Your task to perform on an android device: What's on the menu at Denny's? Image 0: 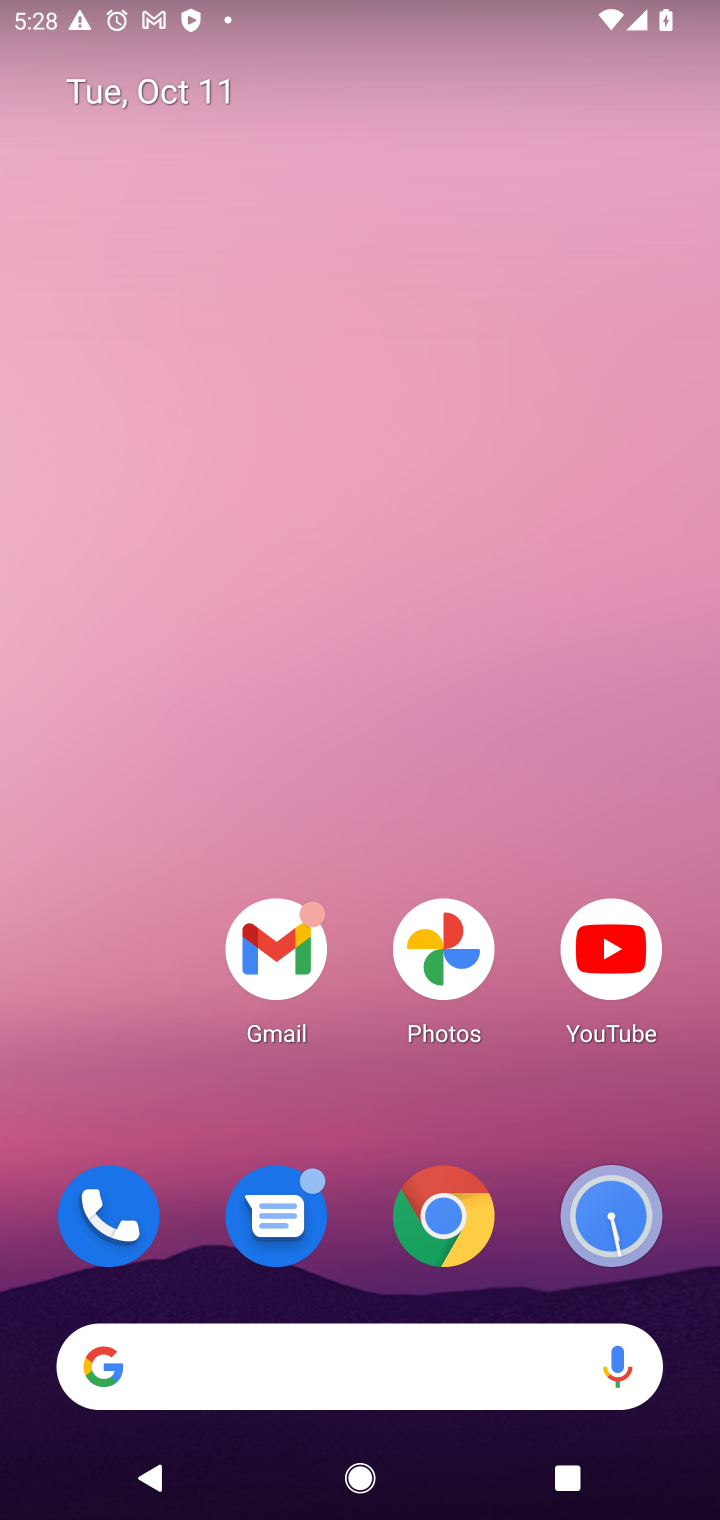
Step 0: click (463, 1198)
Your task to perform on an android device: What's on the menu at Denny's? Image 1: 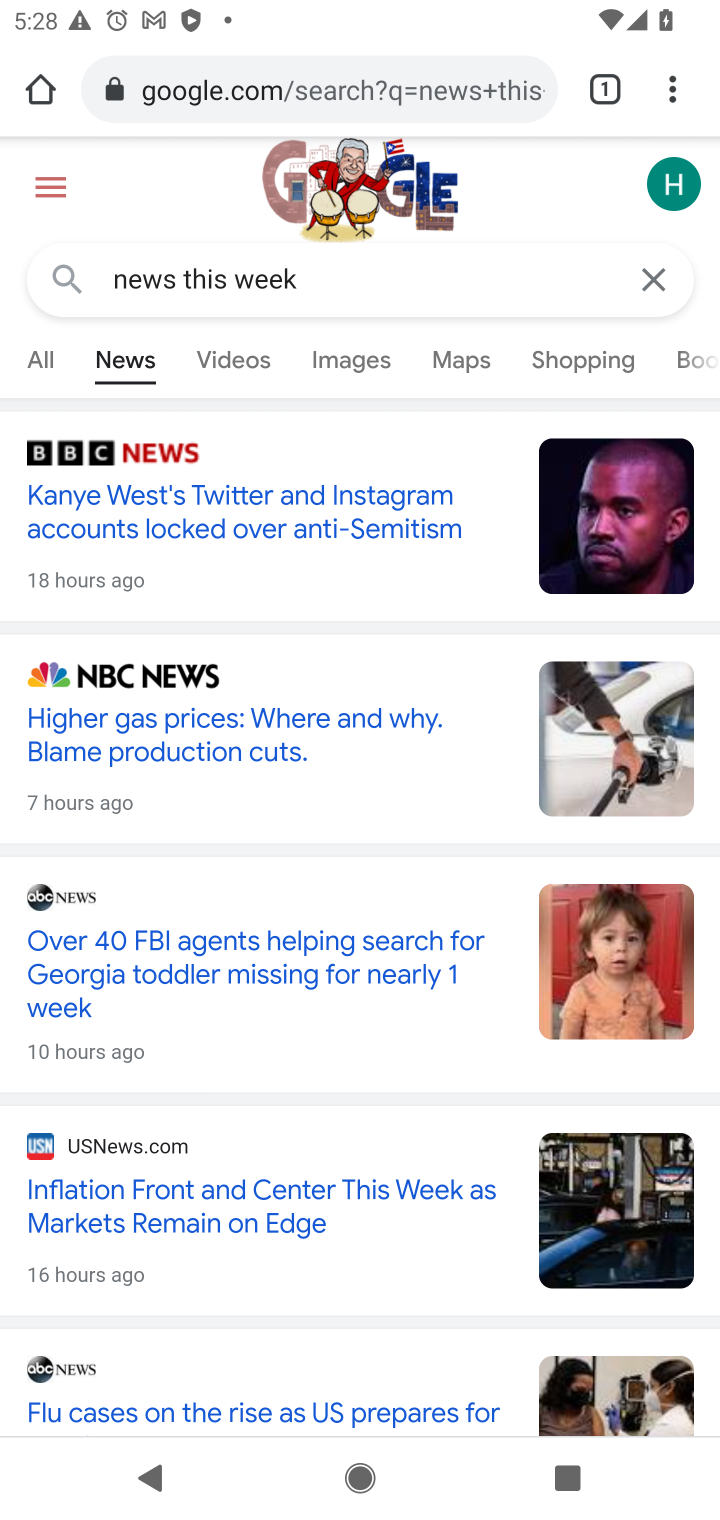
Step 1: click (25, 355)
Your task to perform on an android device: What's on the menu at Denny's? Image 2: 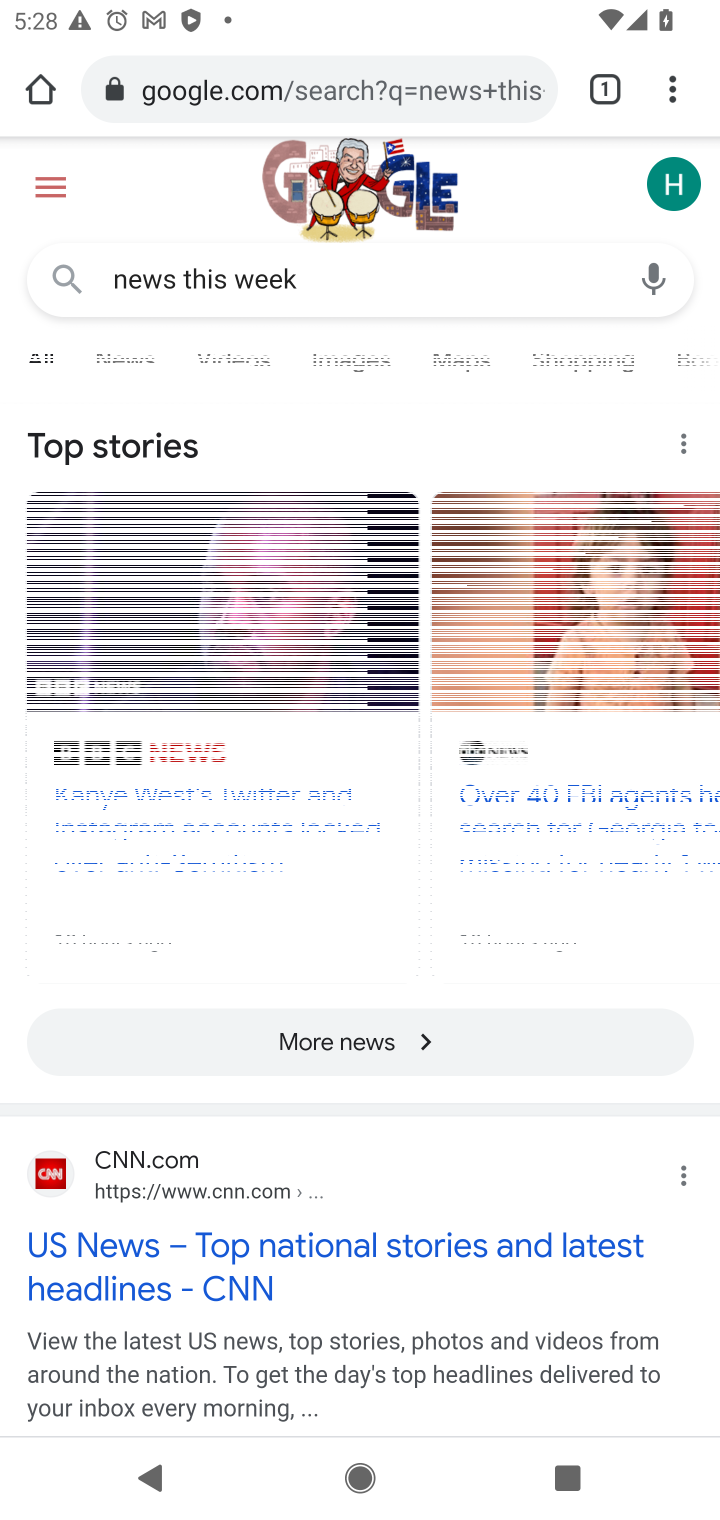
Step 2: click (334, 276)
Your task to perform on an android device: What's on the menu at Denny's? Image 3: 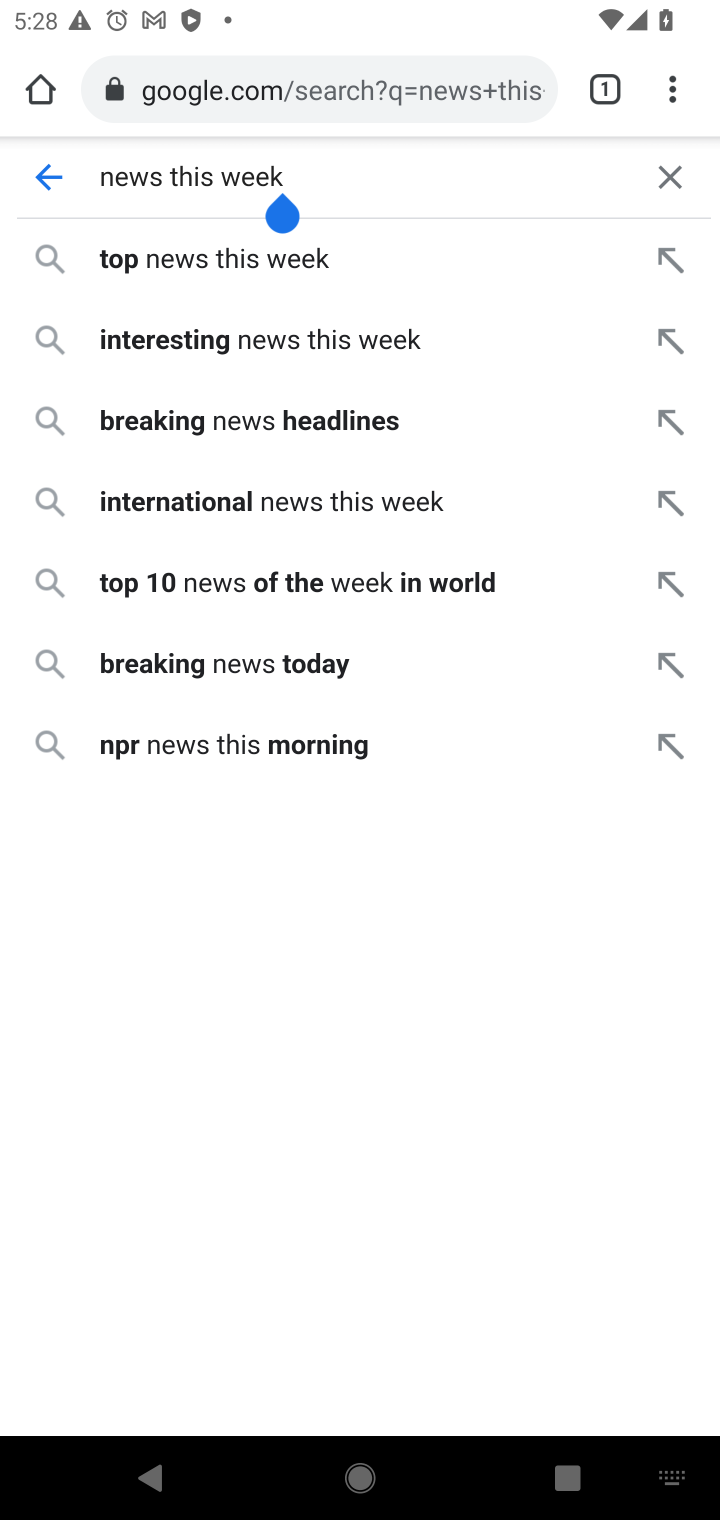
Step 3: click (675, 174)
Your task to perform on an android device: What's on the menu at Denny's? Image 4: 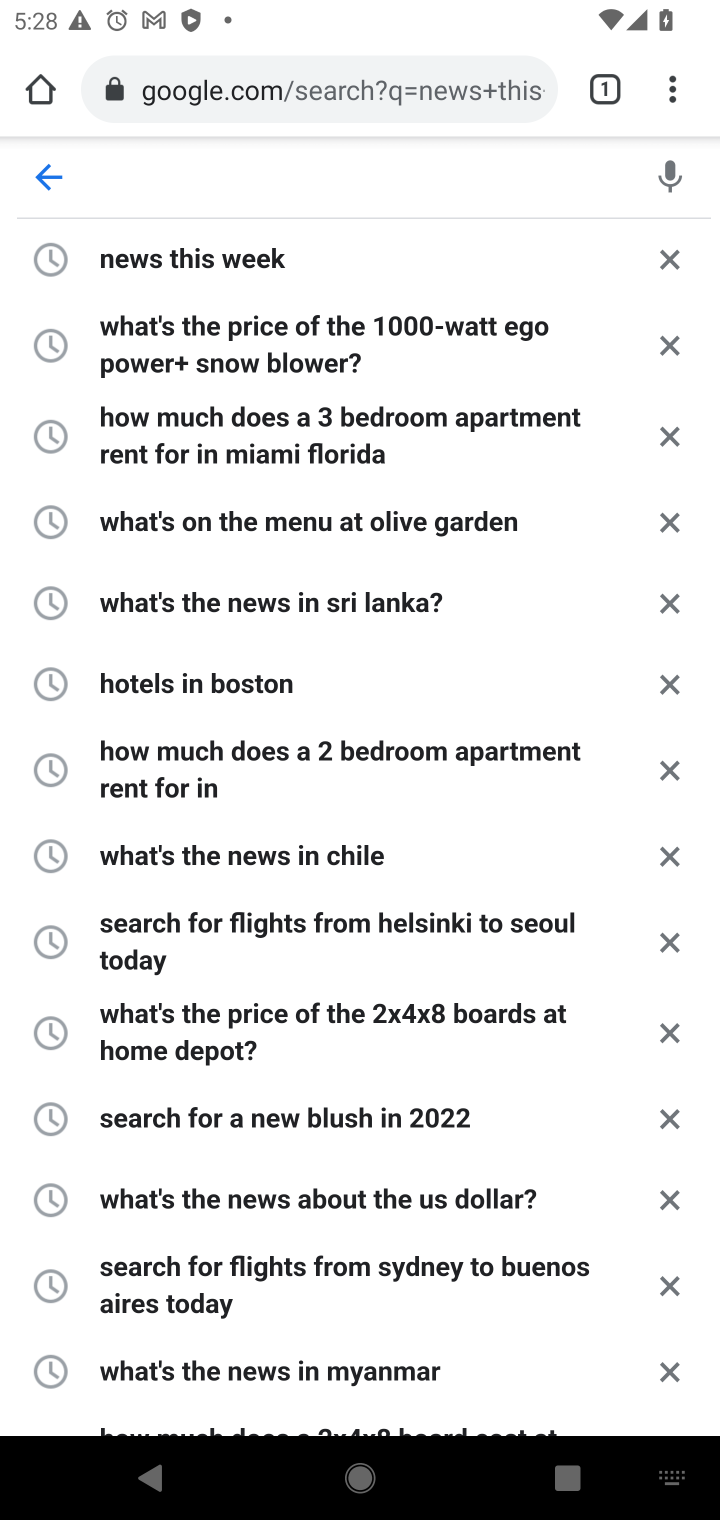
Step 4: type "What's on the menu at Denny's?"
Your task to perform on an android device: What's on the menu at Denny's? Image 5: 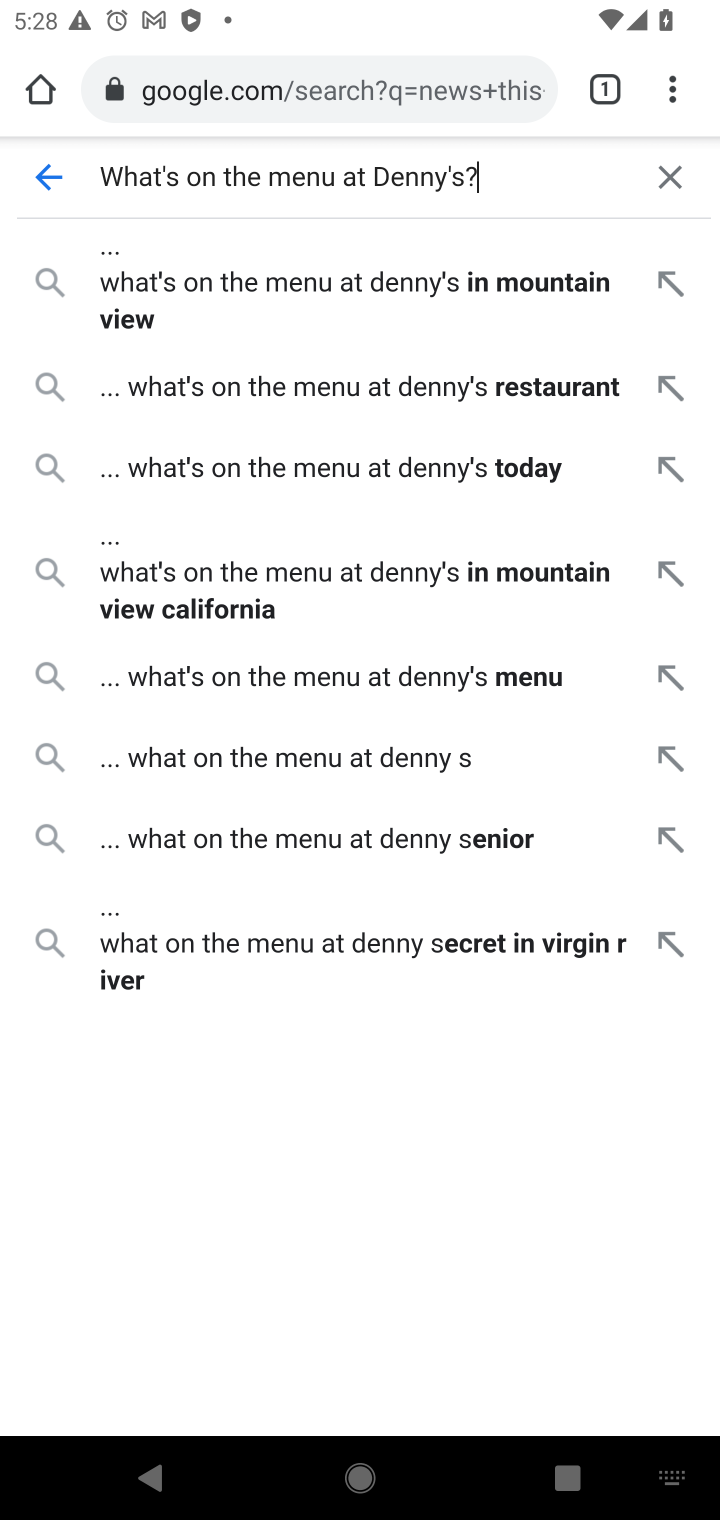
Step 5: press enter
Your task to perform on an android device: What's on the menu at Denny's? Image 6: 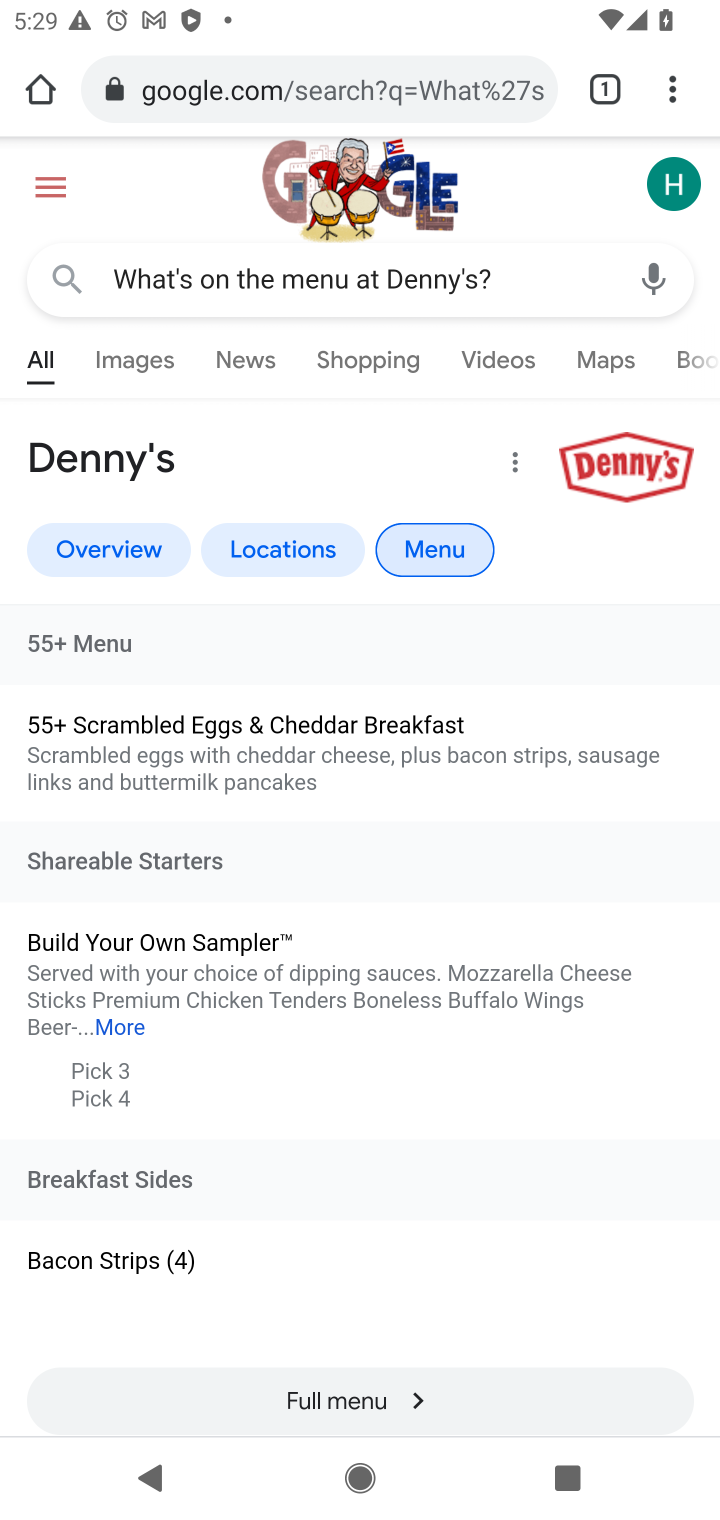
Step 6: task complete